Your task to perform on an android device: stop showing notifications on the lock screen Image 0: 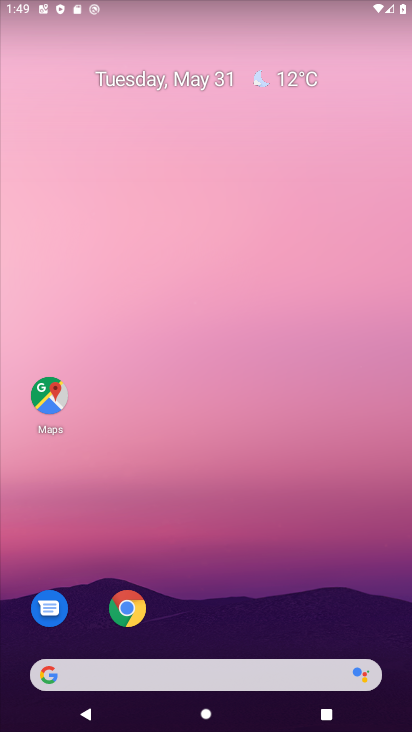
Step 0: drag from (280, 518) to (284, 178)
Your task to perform on an android device: stop showing notifications on the lock screen Image 1: 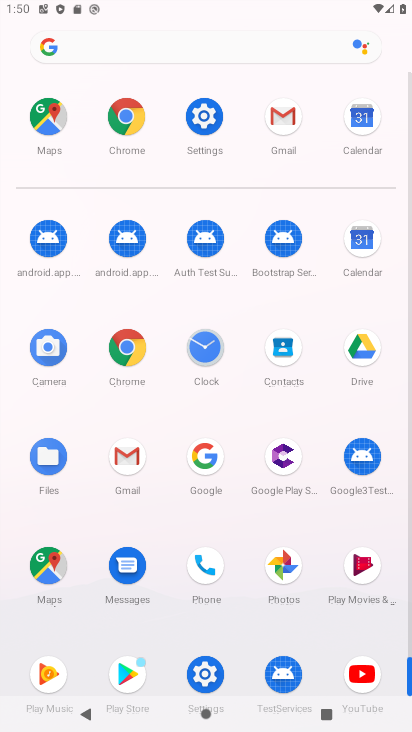
Step 1: click (213, 680)
Your task to perform on an android device: stop showing notifications on the lock screen Image 2: 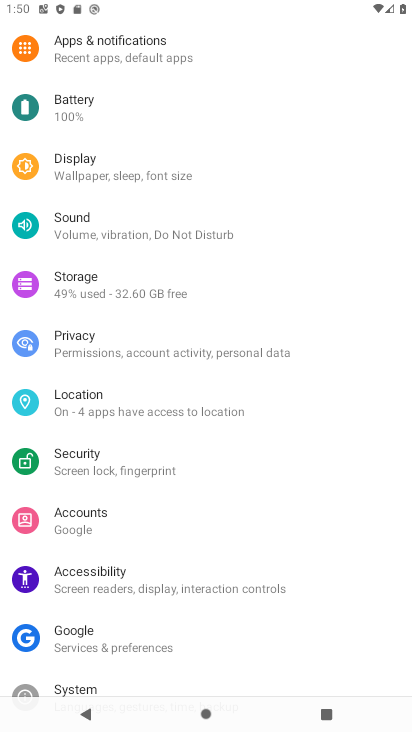
Step 2: drag from (247, 143) to (236, 389)
Your task to perform on an android device: stop showing notifications on the lock screen Image 3: 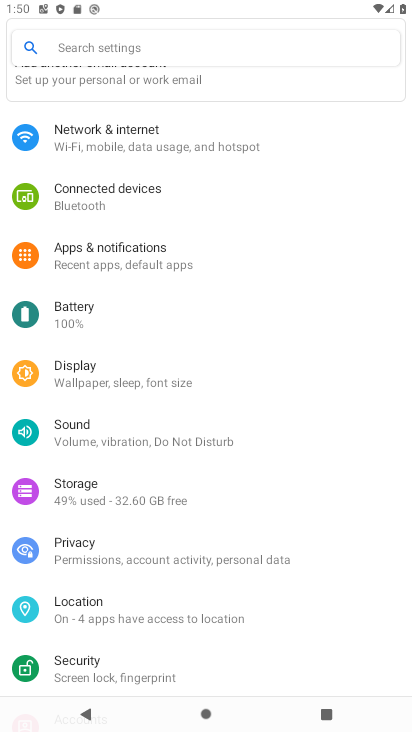
Step 3: click (124, 246)
Your task to perform on an android device: stop showing notifications on the lock screen Image 4: 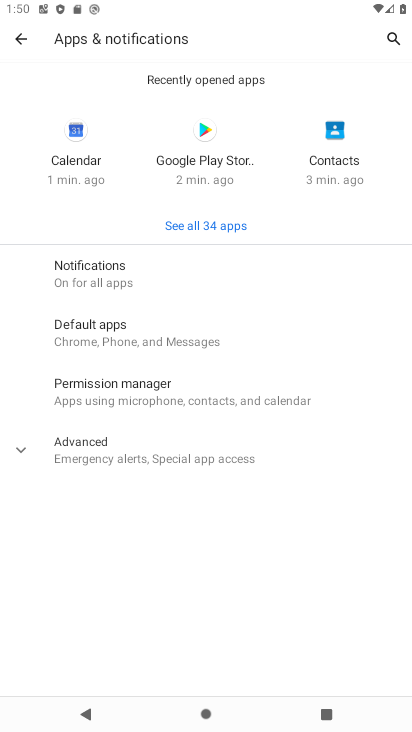
Step 4: click (123, 270)
Your task to perform on an android device: stop showing notifications on the lock screen Image 5: 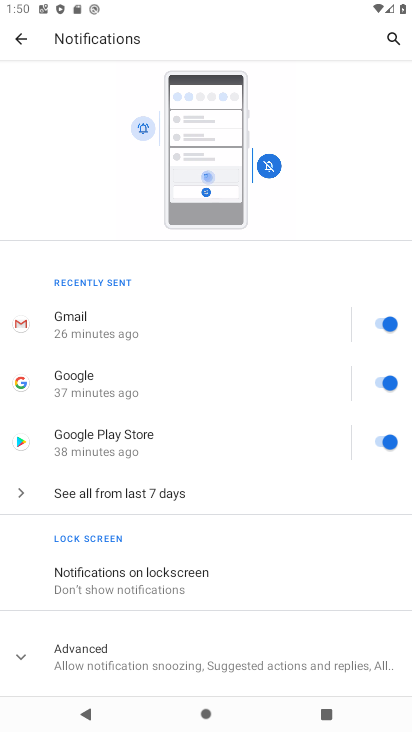
Step 5: click (221, 584)
Your task to perform on an android device: stop showing notifications on the lock screen Image 6: 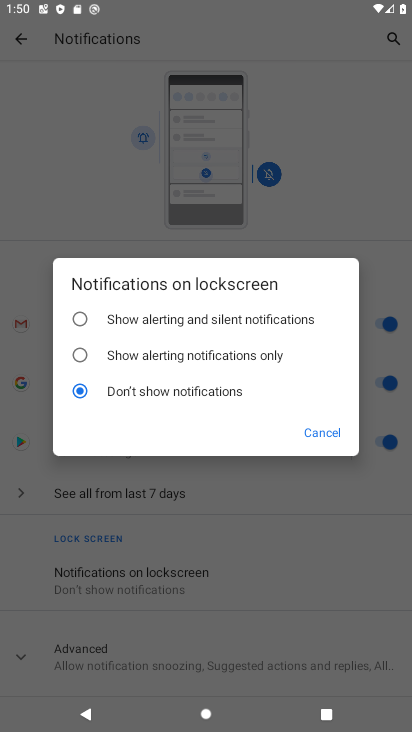
Step 6: task complete